Your task to perform on an android device: change the clock display to analog Image 0: 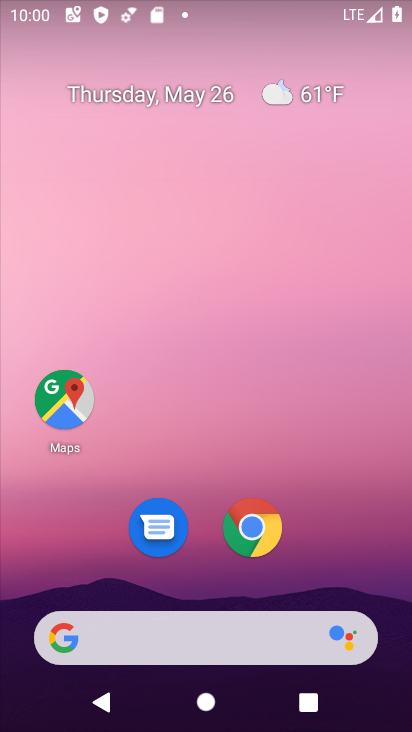
Step 0: drag from (188, 556) to (264, 41)
Your task to perform on an android device: change the clock display to analog Image 1: 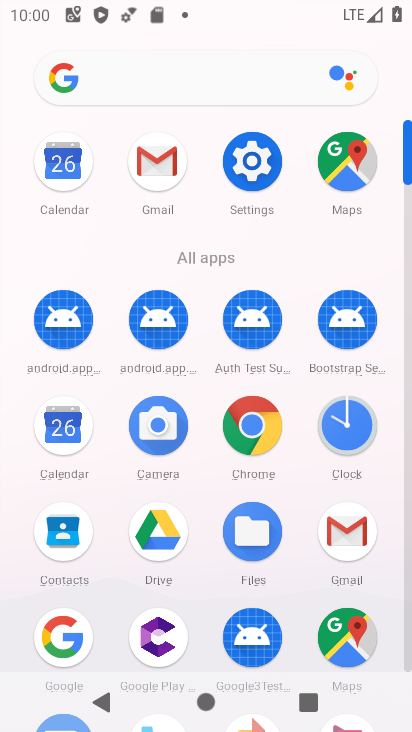
Step 1: click (349, 434)
Your task to perform on an android device: change the clock display to analog Image 2: 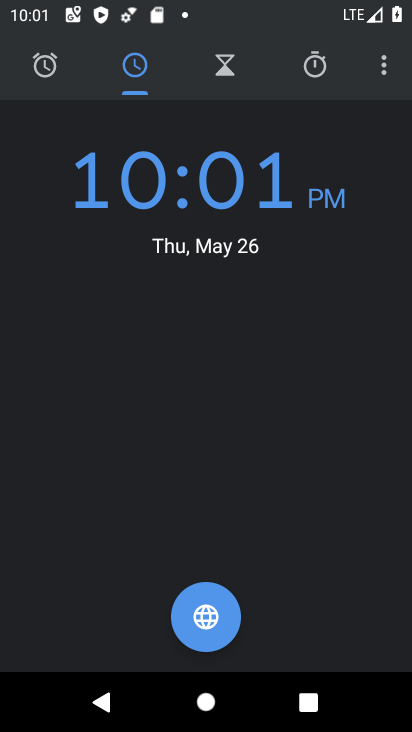
Step 2: click (383, 63)
Your task to perform on an android device: change the clock display to analog Image 3: 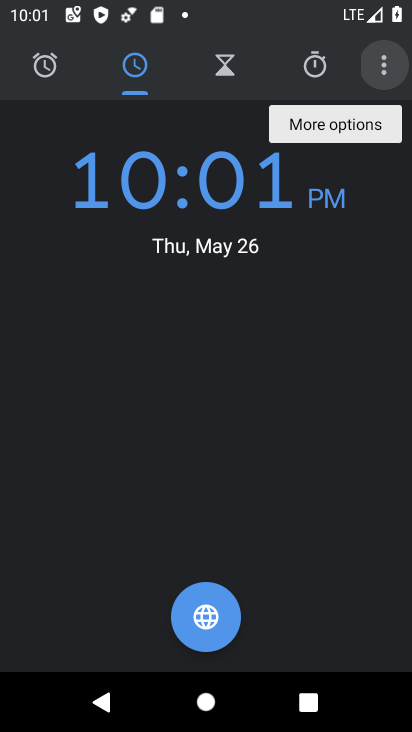
Step 3: click (384, 64)
Your task to perform on an android device: change the clock display to analog Image 4: 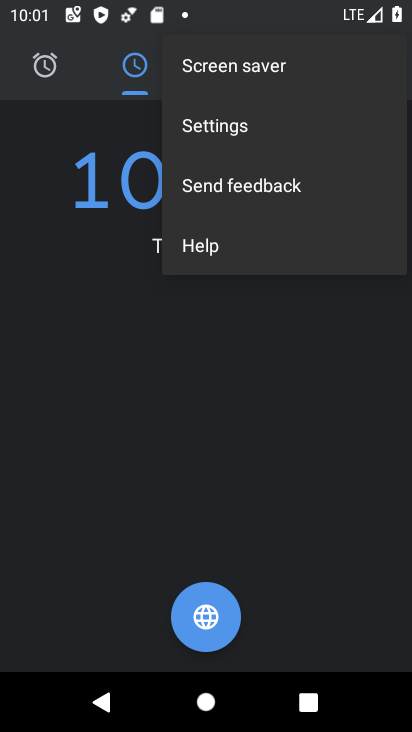
Step 4: click (245, 120)
Your task to perform on an android device: change the clock display to analog Image 5: 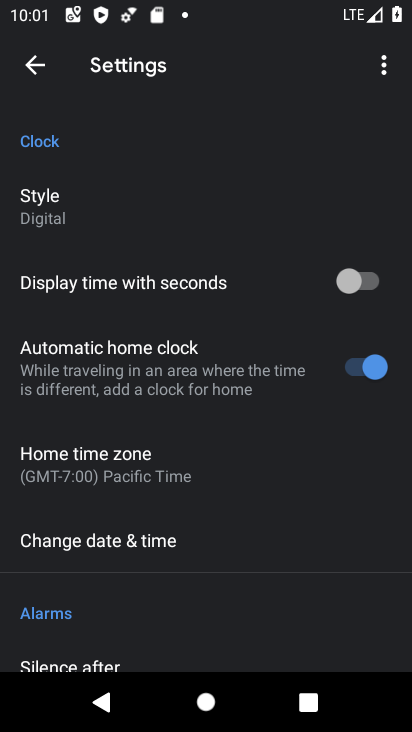
Step 5: click (45, 208)
Your task to perform on an android device: change the clock display to analog Image 6: 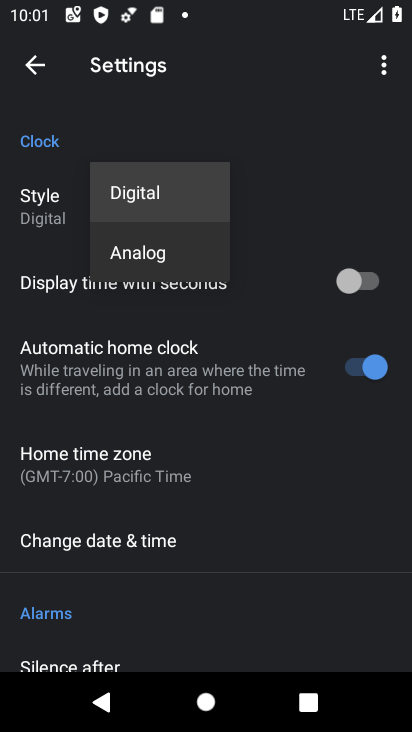
Step 6: click (157, 248)
Your task to perform on an android device: change the clock display to analog Image 7: 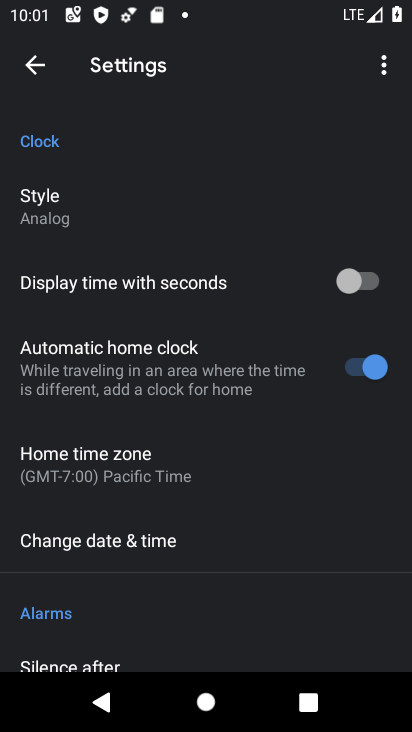
Step 7: task complete